Your task to perform on an android device: Open Google Chrome and click the shortcut for Amazon.com Image 0: 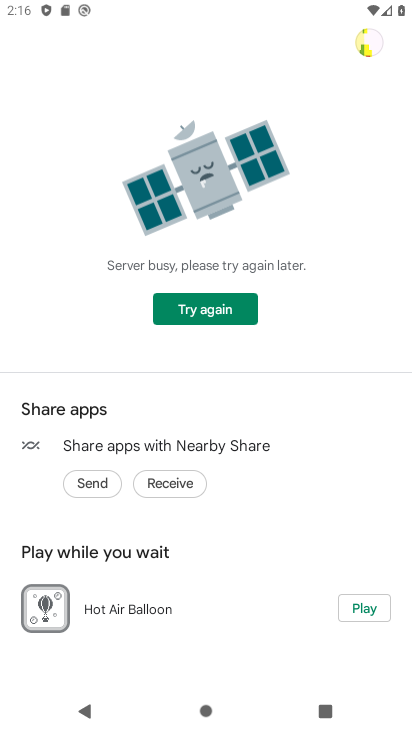
Step 0: press home button
Your task to perform on an android device: Open Google Chrome and click the shortcut for Amazon.com Image 1: 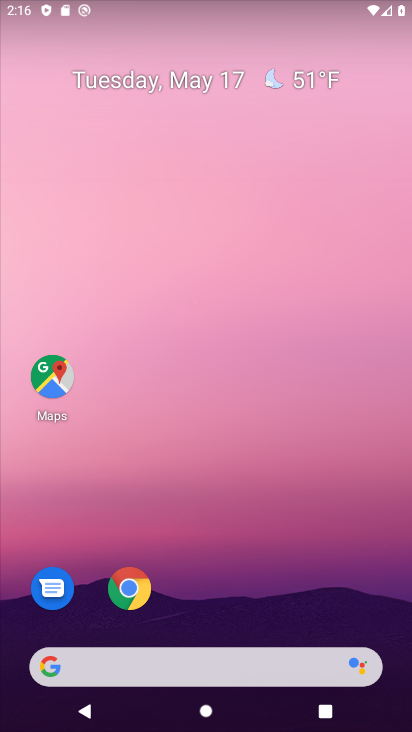
Step 1: click (137, 589)
Your task to perform on an android device: Open Google Chrome and click the shortcut for Amazon.com Image 2: 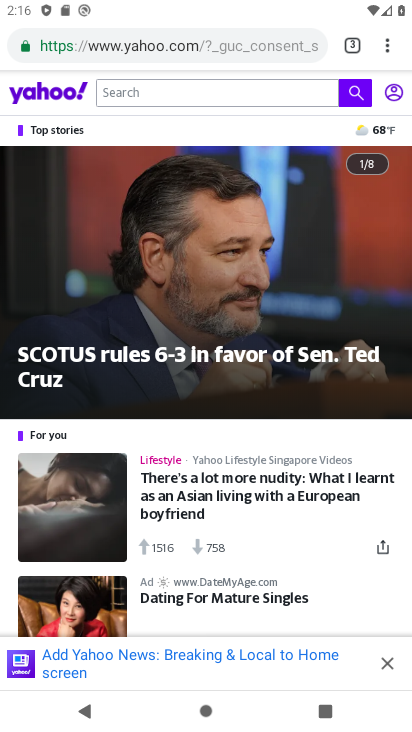
Step 2: click (351, 39)
Your task to perform on an android device: Open Google Chrome and click the shortcut for Amazon.com Image 3: 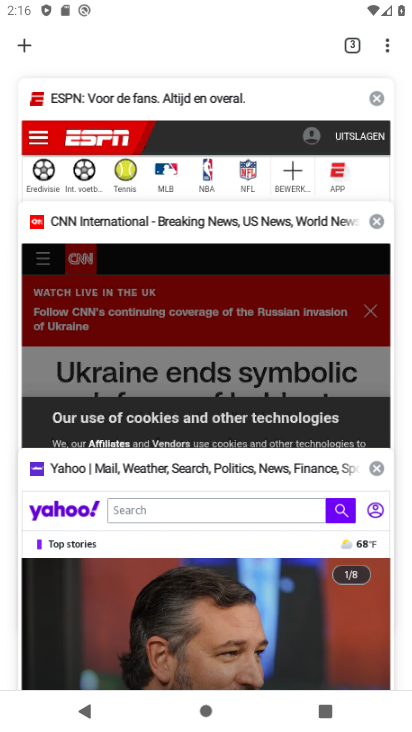
Step 3: click (28, 40)
Your task to perform on an android device: Open Google Chrome and click the shortcut for Amazon.com Image 4: 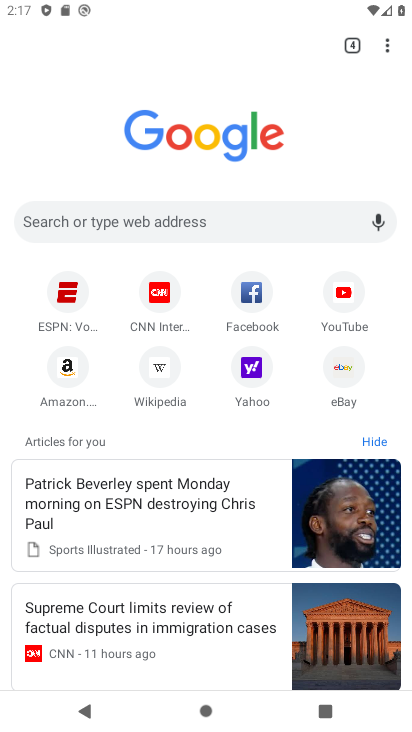
Step 4: click (60, 372)
Your task to perform on an android device: Open Google Chrome and click the shortcut for Amazon.com Image 5: 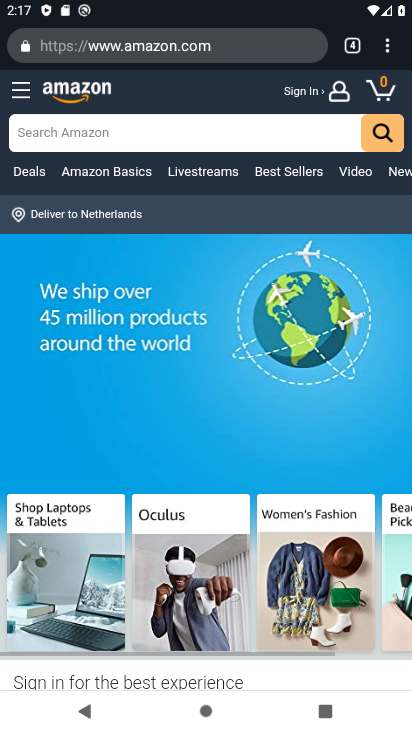
Step 5: task complete